Your task to perform on an android device: Check the weather Image 0: 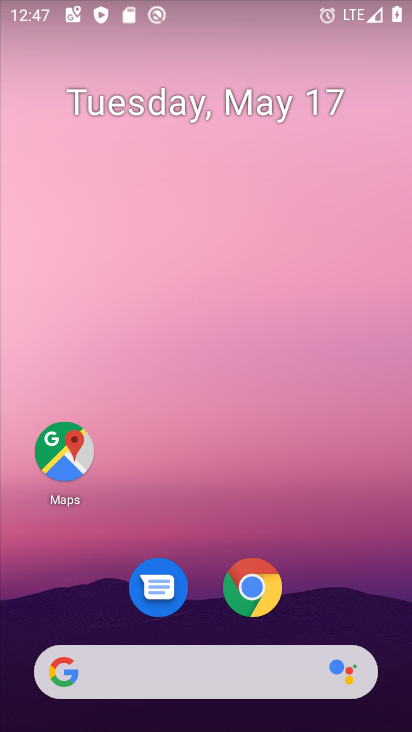
Step 0: drag from (399, 675) to (332, 86)
Your task to perform on an android device: Check the weather Image 1: 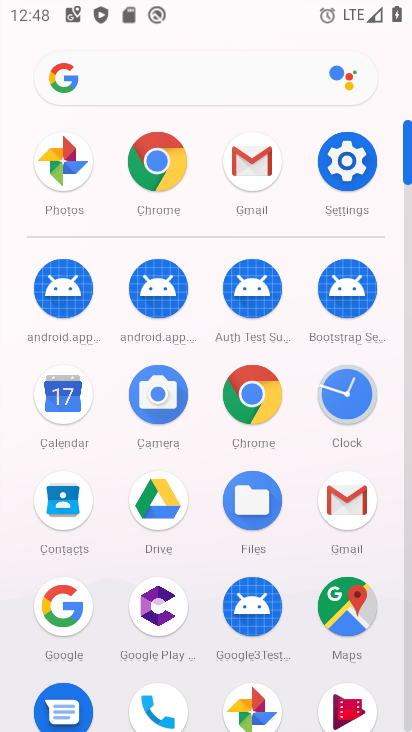
Step 1: click (51, 592)
Your task to perform on an android device: Check the weather Image 2: 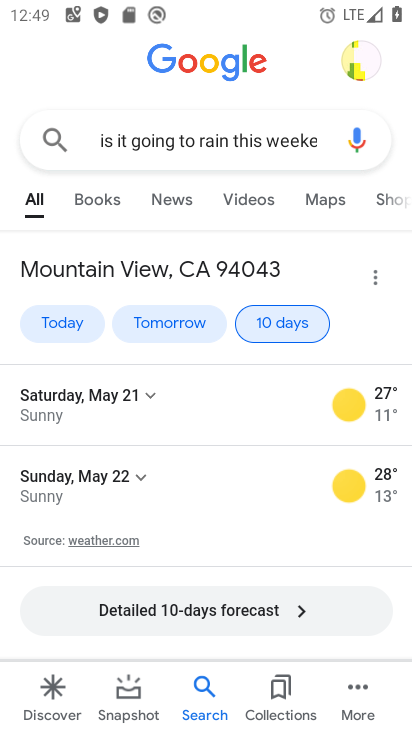
Step 2: press back button
Your task to perform on an android device: Check the weather Image 3: 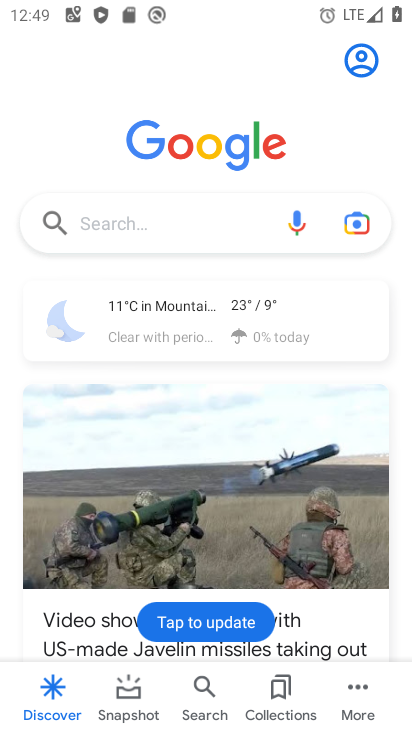
Step 3: click (147, 247)
Your task to perform on an android device: Check the weather Image 4: 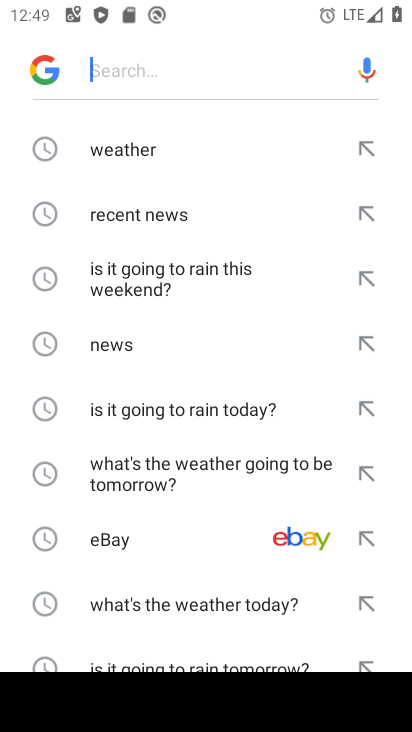
Step 4: click (199, 166)
Your task to perform on an android device: Check the weather Image 5: 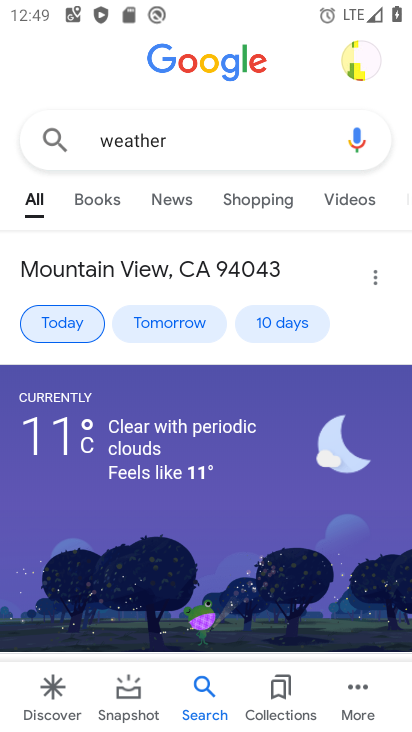
Step 5: task complete